Your task to perform on an android device: manage bookmarks in the chrome app Image 0: 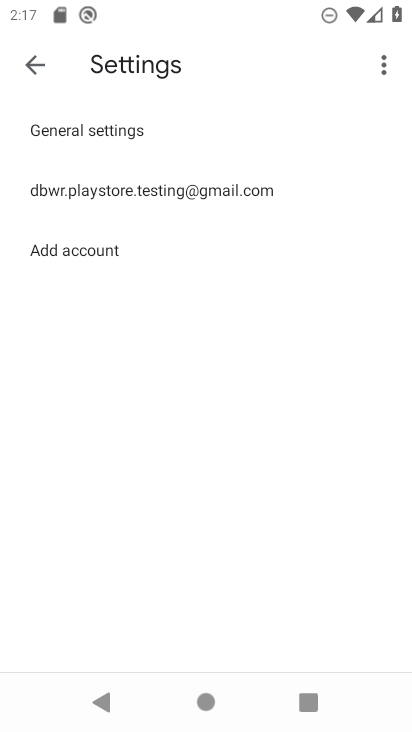
Step 0: click (25, 70)
Your task to perform on an android device: manage bookmarks in the chrome app Image 1: 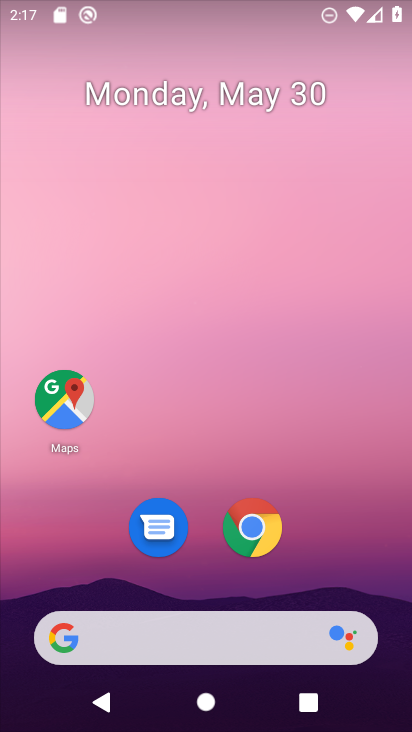
Step 1: drag from (243, 702) to (240, 210)
Your task to perform on an android device: manage bookmarks in the chrome app Image 2: 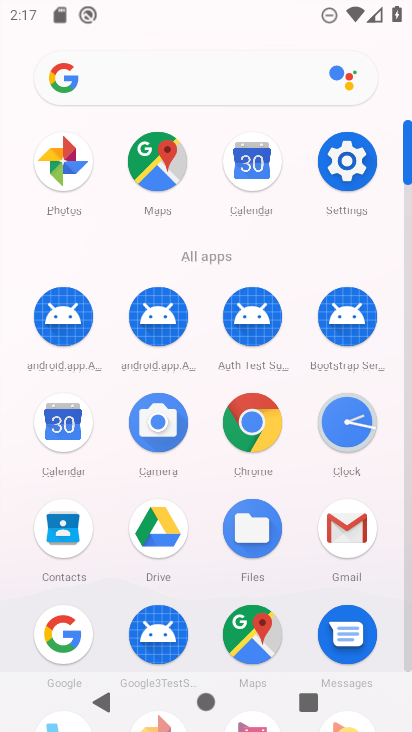
Step 2: click (258, 418)
Your task to perform on an android device: manage bookmarks in the chrome app Image 3: 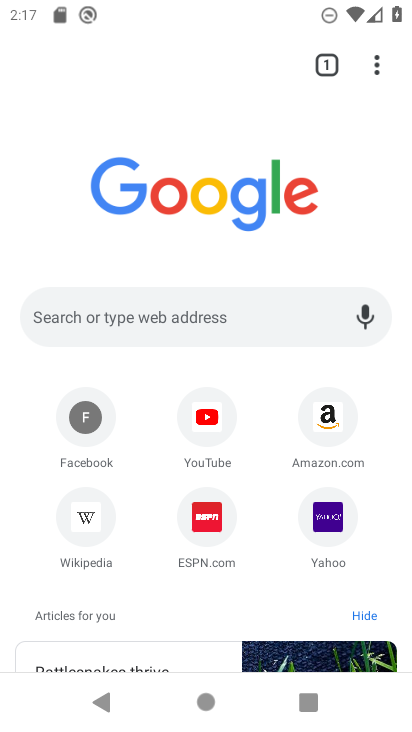
Step 3: click (378, 76)
Your task to perform on an android device: manage bookmarks in the chrome app Image 4: 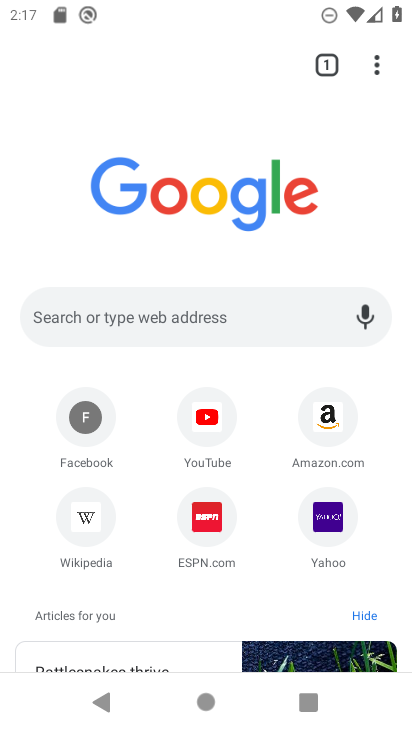
Step 4: drag from (372, 69) to (146, 543)
Your task to perform on an android device: manage bookmarks in the chrome app Image 5: 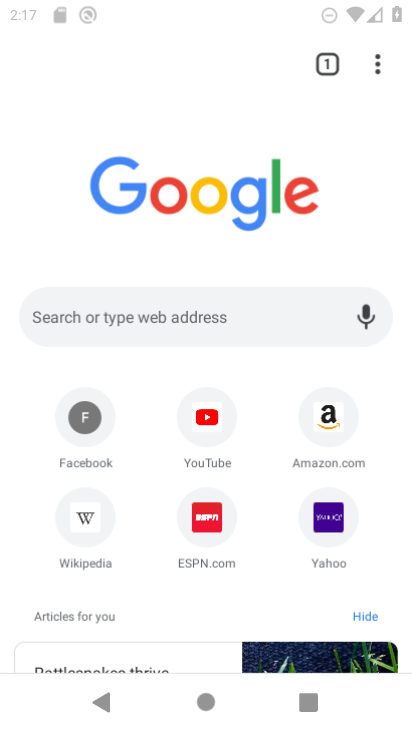
Step 5: drag from (146, 543) to (146, 326)
Your task to perform on an android device: manage bookmarks in the chrome app Image 6: 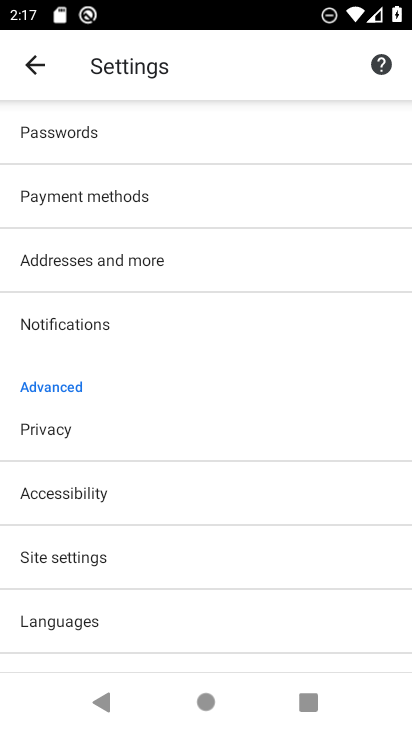
Step 6: click (35, 70)
Your task to perform on an android device: manage bookmarks in the chrome app Image 7: 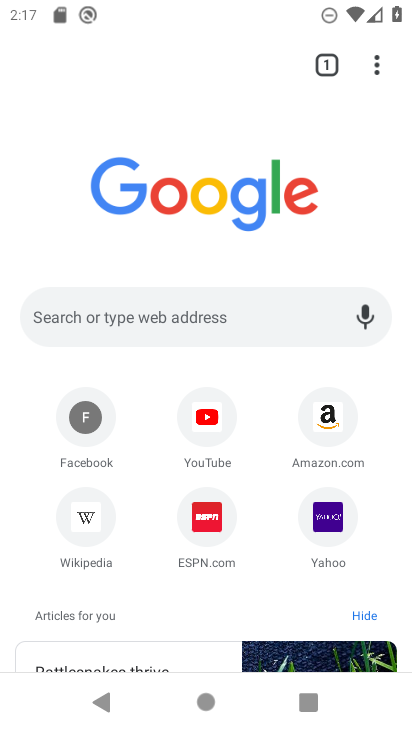
Step 7: click (381, 60)
Your task to perform on an android device: manage bookmarks in the chrome app Image 8: 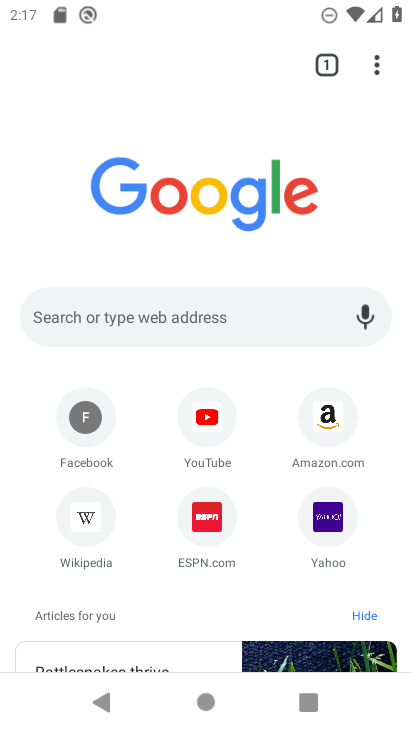
Step 8: drag from (374, 68) to (318, 125)
Your task to perform on an android device: manage bookmarks in the chrome app Image 9: 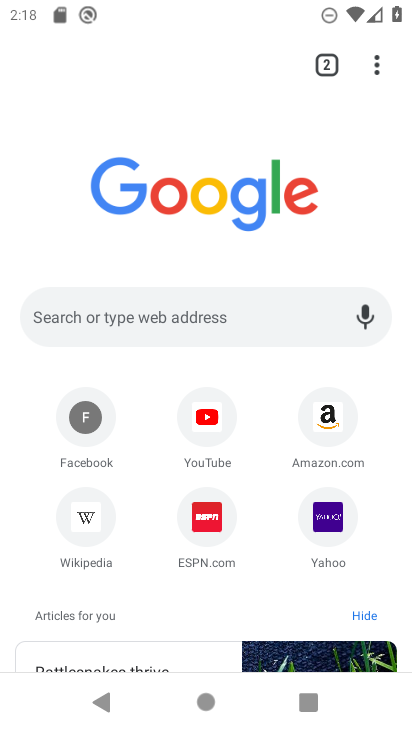
Step 9: drag from (372, 71) to (273, 205)
Your task to perform on an android device: manage bookmarks in the chrome app Image 10: 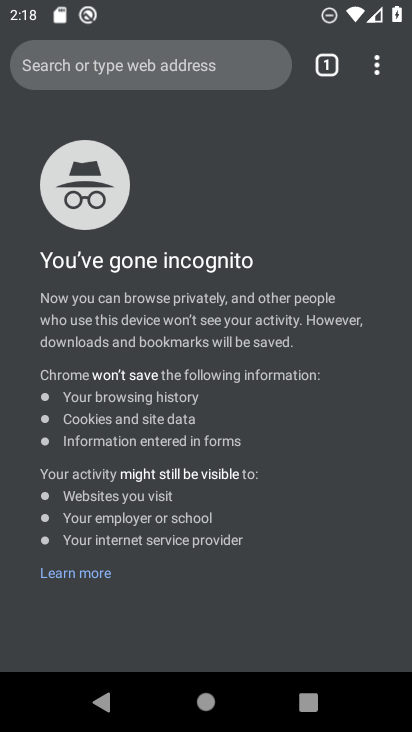
Step 10: drag from (375, 62) to (141, 248)
Your task to perform on an android device: manage bookmarks in the chrome app Image 11: 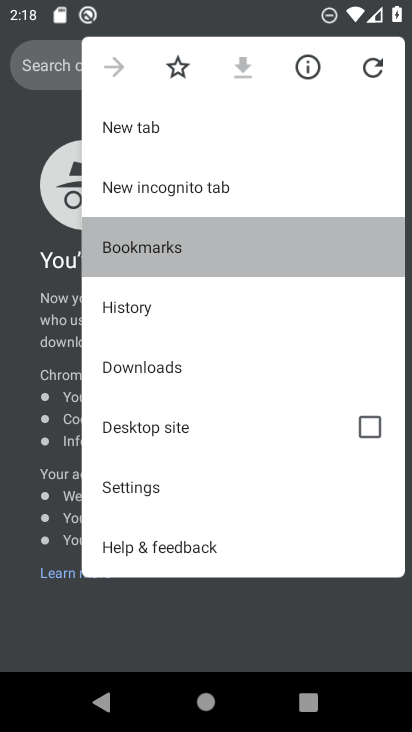
Step 11: click (140, 248)
Your task to perform on an android device: manage bookmarks in the chrome app Image 12: 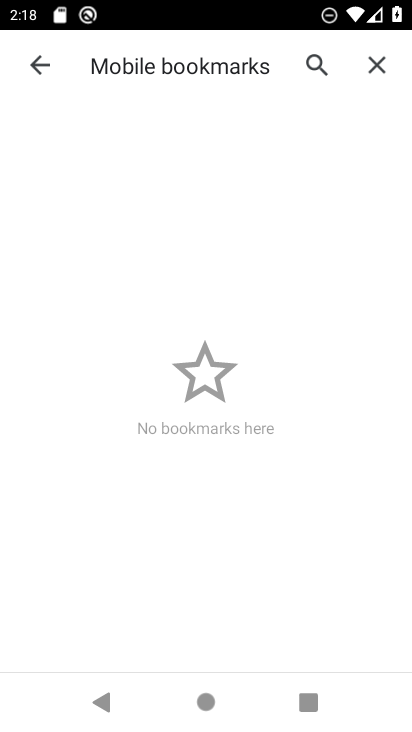
Step 12: task complete